Your task to perform on an android device: change the clock display to show seconds Image 0: 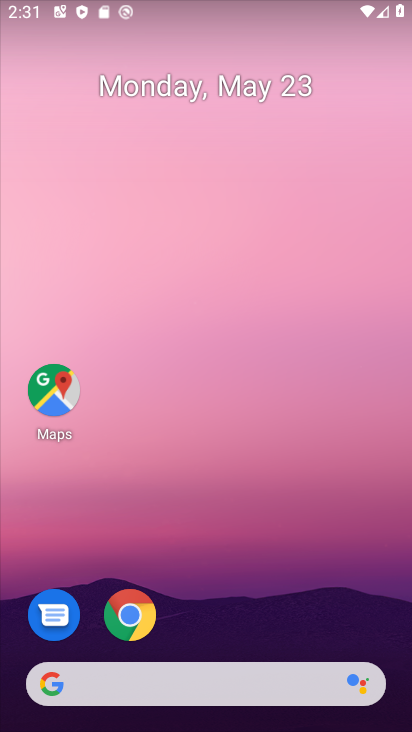
Step 0: drag from (392, 622) to (352, 129)
Your task to perform on an android device: change the clock display to show seconds Image 1: 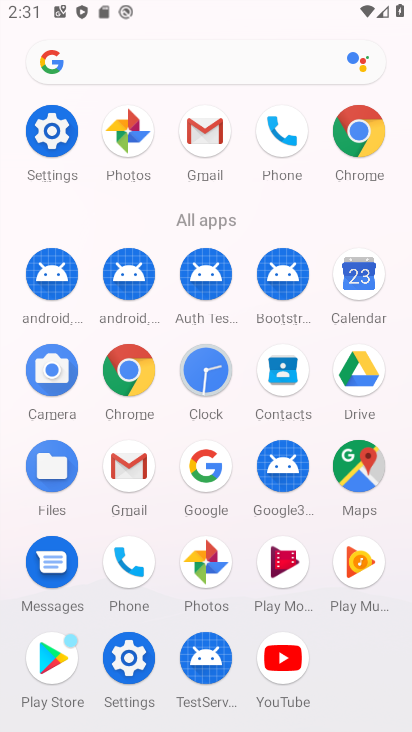
Step 1: click (205, 376)
Your task to perform on an android device: change the clock display to show seconds Image 2: 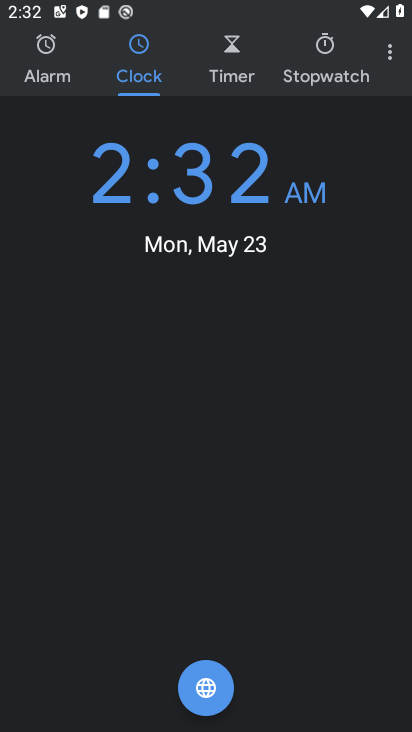
Step 2: click (393, 57)
Your task to perform on an android device: change the clock display to show seconds Image 3: 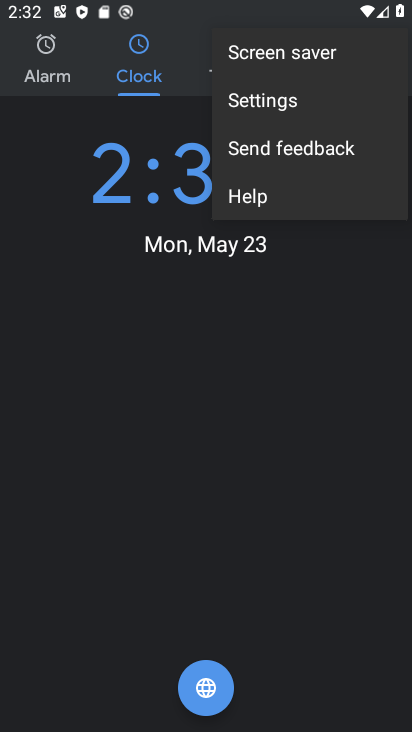
Step 3: click (306, 123)
Your task to perform on an android device: change the clock display to show seconds Image 4: 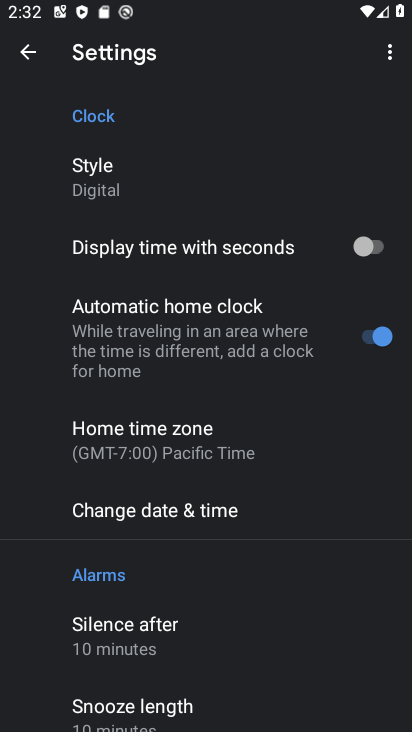
Step 4: drag from (322, 564) to (334, 464)
Your task to perform on an android device: change the clock display to show seconds Image 5: 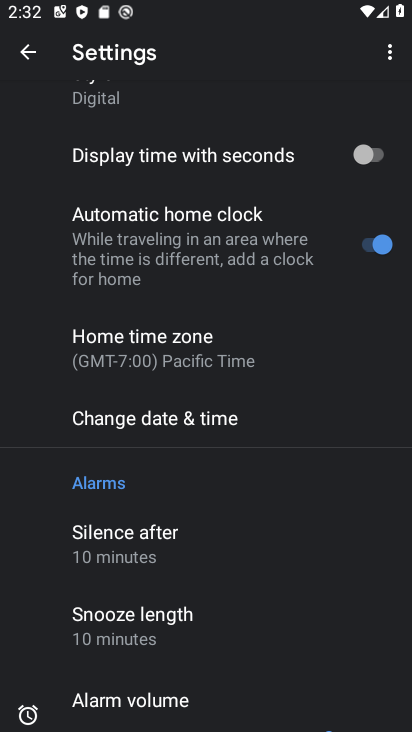
Step 5: drag from (340, 601) to (356, 484)
Your task to perform on an android device: change the clock display to show seconds Image 6: 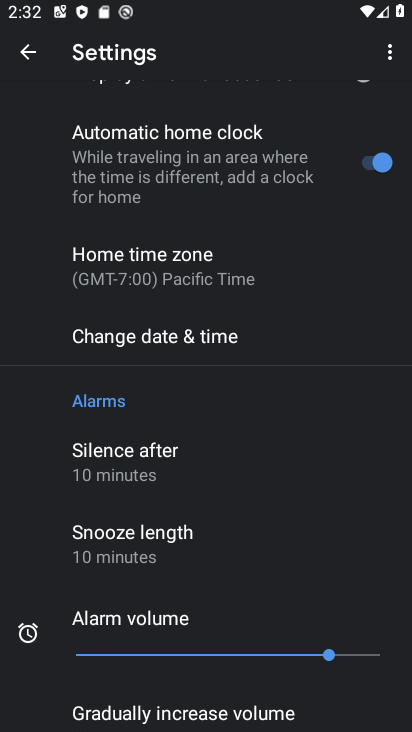
Step 6: drag from (346, 671) to (345, 529)
Your task to perform on an android device: change the clock display to show seconds Image 7: 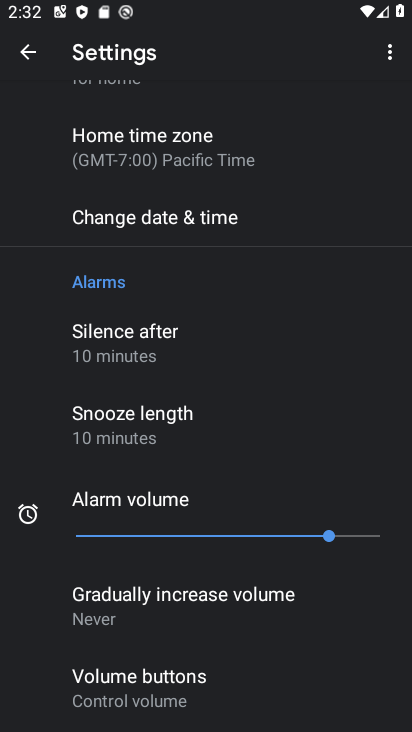
Step 7: drag from (328, 654) to (346, 549)
Your task to perform on an android device: change the clock display to show seconds Image 8: 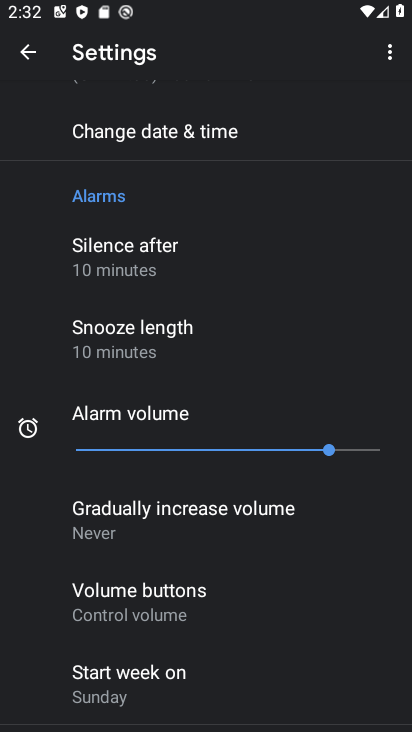
Step 8: drag from (336, 647) to (347, 541)
Your task to perform on an android device: change the clock display to show seconds Image 9: 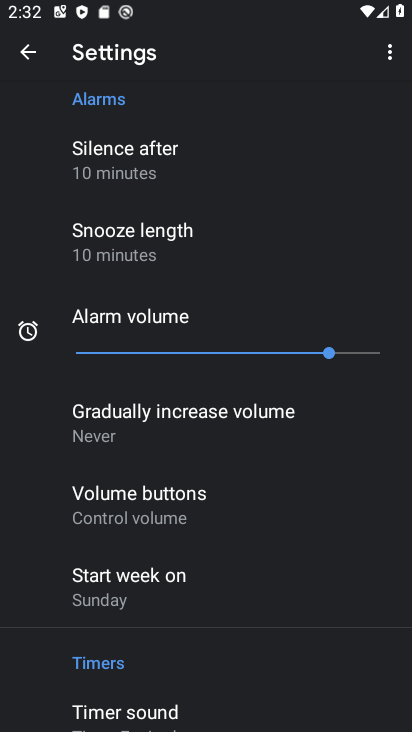
Step 9: drag from (338, 659) to (342, 552)
Your task to perform on an android device: change the clock display to show seconds Image 10: 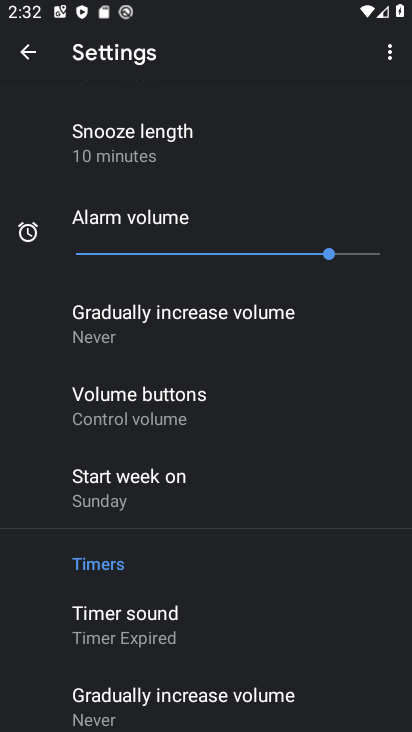
Step 10: drag from (348, 648) to (362, 523)
Your task to perform on an android device: change the clock display to show seconds Image 11: 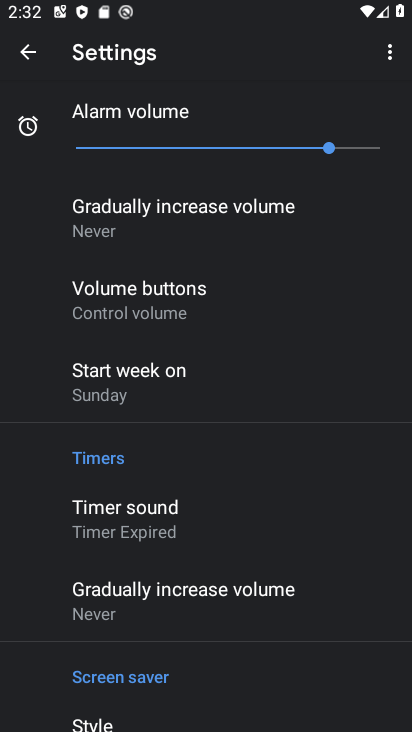
Step 11: drag from (340, 673) to (360, 538)
Your task to perform on an android device: change the clock display to show seconds Image 12: 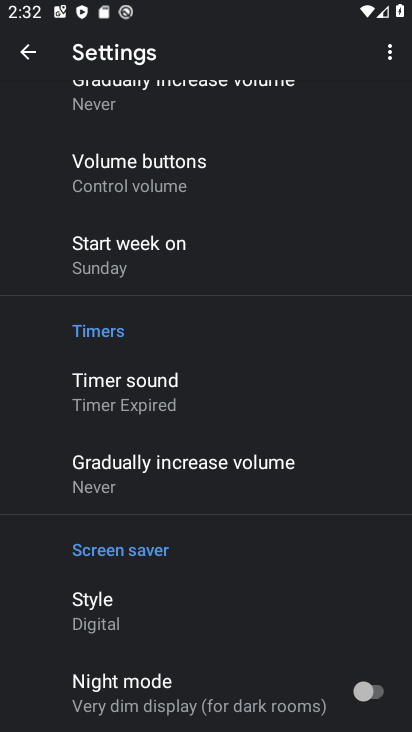
Step 12: drag from (311, 661) to (318, 521)
Your task to perform on an android device: change the clock display to show seconds Image 13: 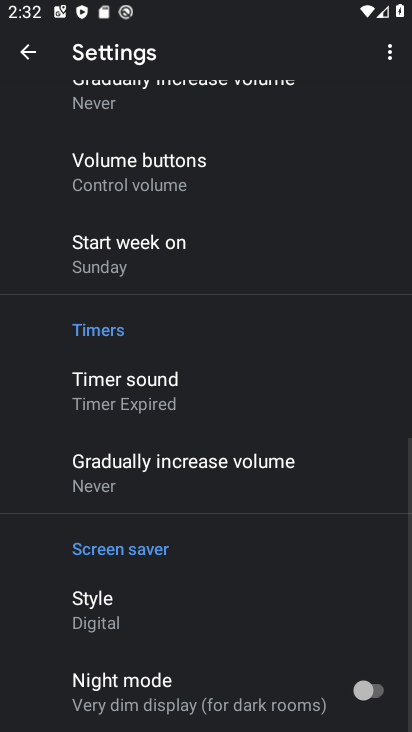
Step 13: drag from (328, 394) to (327, 517)
Your task to perform on an android device: change the clock display to show seconds Image 14: 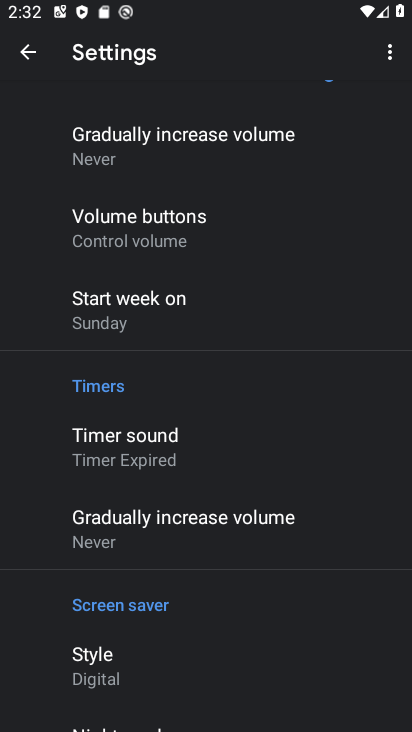
Step 14: drag from (340, 381) to (330, 514)
Your task to perform on an android device: change the clock display to show seconds Image 15: 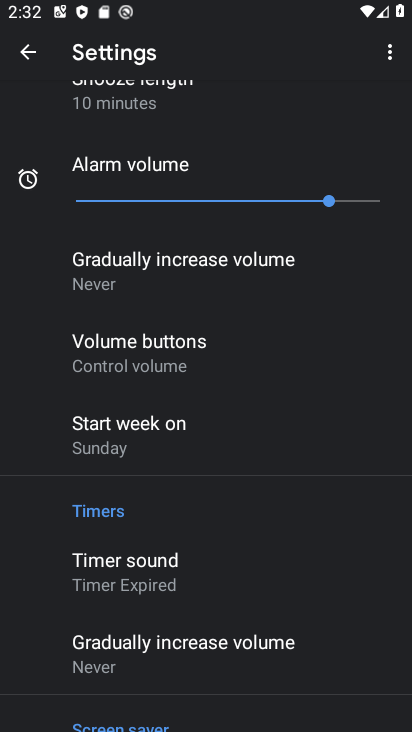
Step 15: drag from (334, 315) to (341, 452)
Your task to perform on an android device: change the clock display to show seconds Image 16: 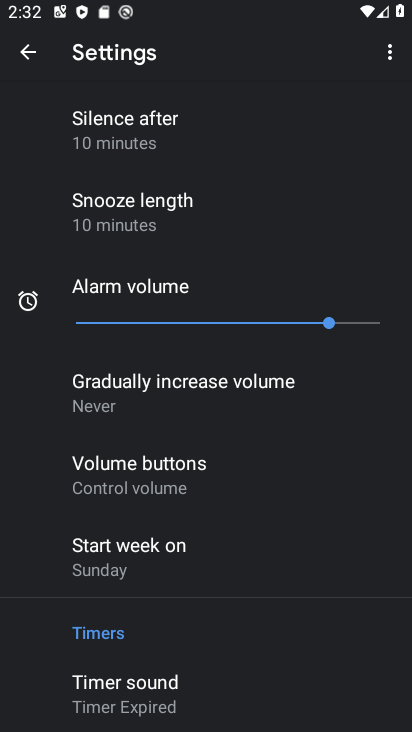
Step 16: drag from (348, 277) to (339, 413)
Your task to perform on an android device: change the clock display to show seconds Image 17: 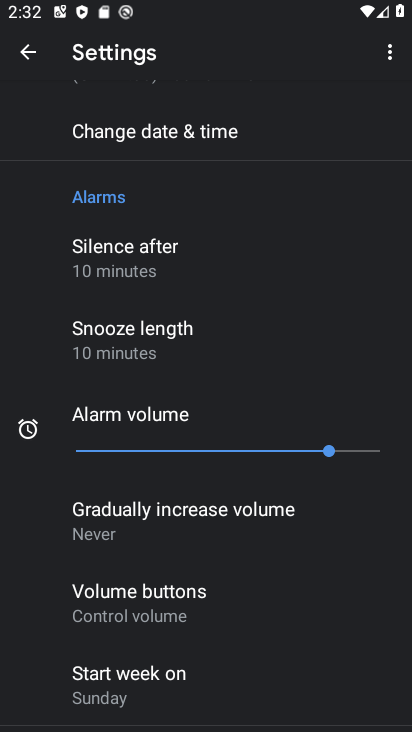
Step 17: drag from (310, 240) to (316, 361)
Your task to perform on an android device: change the clock display to show seconds Image 18: 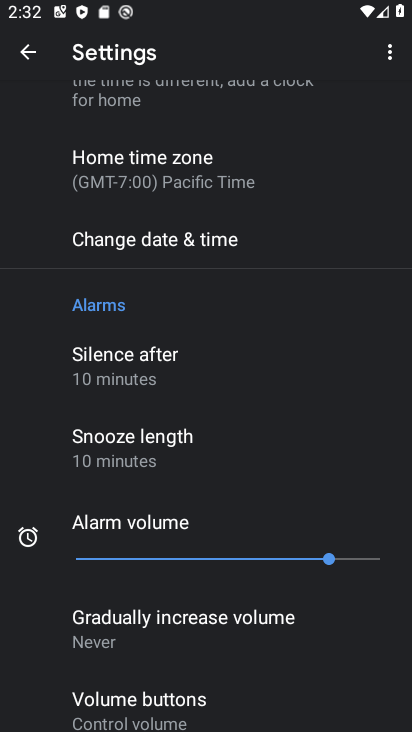
Step 18: drag from (302, 218) to (324, 439)
Your task to perform on an android device: change the clock display to show seconds Image 19: 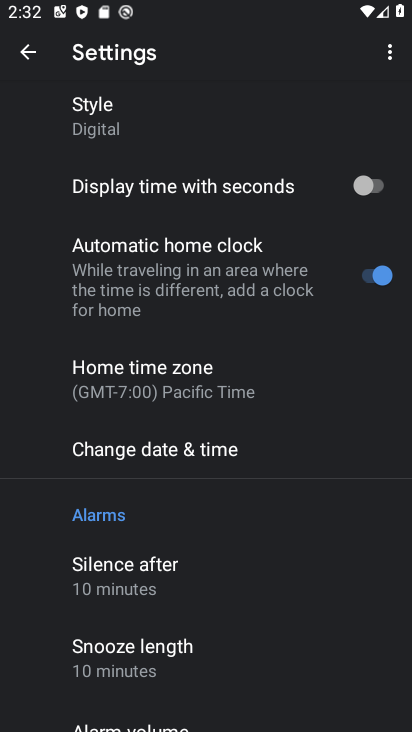
Step 19: click (363, 188)
Your task to perform on an android device: change the clock display to show seconds Image 20: 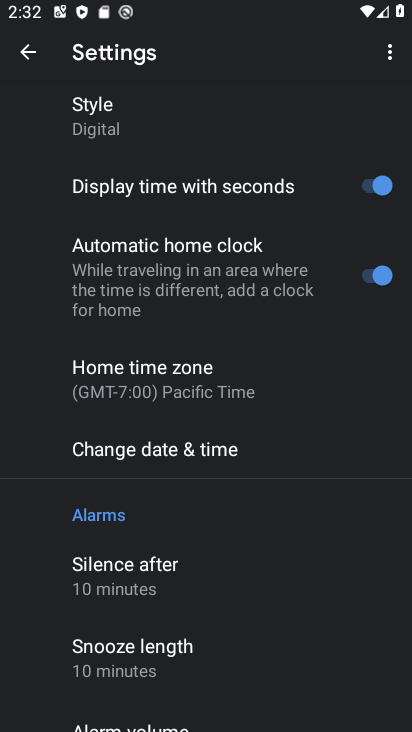
Step 20: task complete